Your task to perform on an android device: Go to wifi settings Image 0: 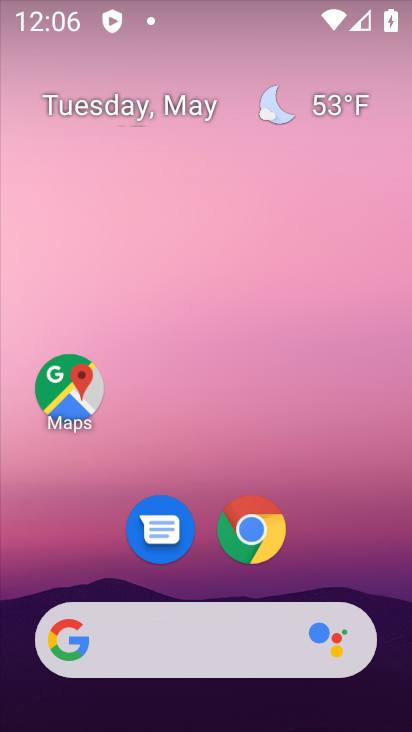
Step 0: drag from (143, 17) to (69, 730)
Your task to perform on an android device: Go to wifi settings Image 1: 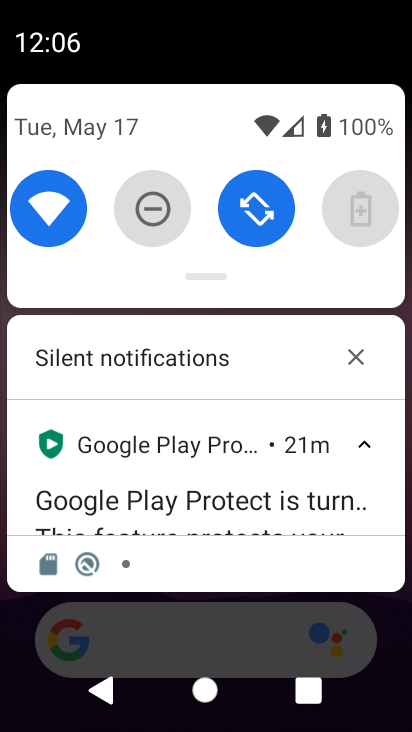
Step 1: click (43, 183)
Your task to perform on an android device: Go to wifi settings Image 2: 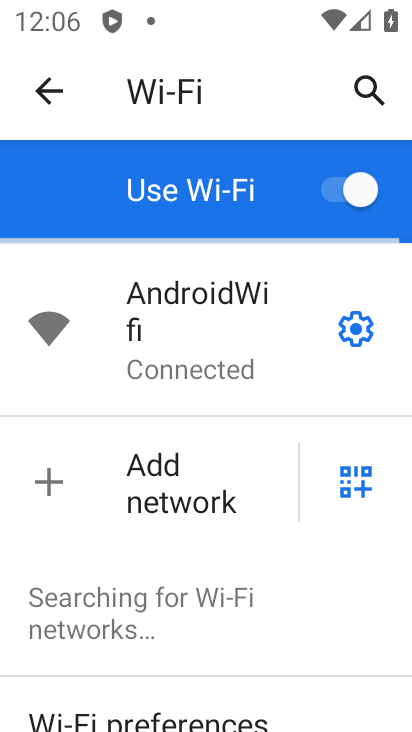
Step 2: task complete